Your task to perform on an android device: turn on translation in the chrome app Image 0: 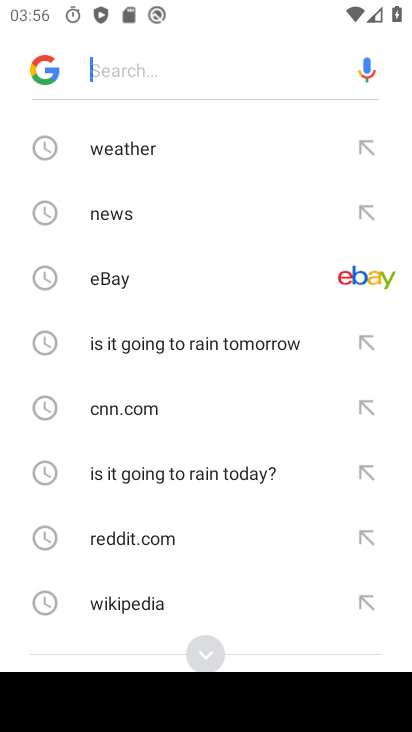
Step 0: press home button
Your task to perform on an android device: turn on translation in the chrome app Image 1: 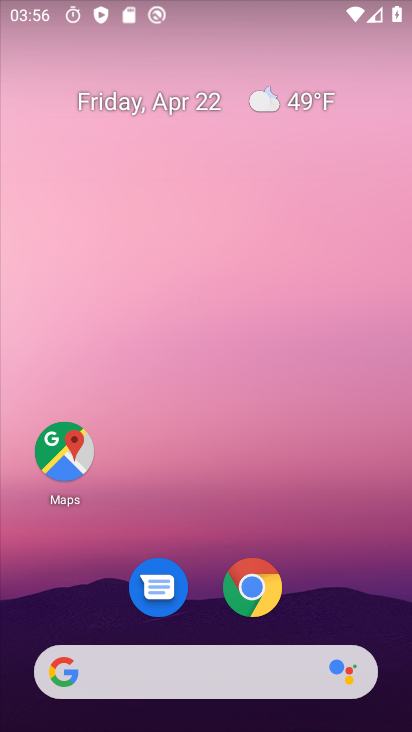
Step 1: click (246, 594)
Your task to perform on an android device: turn on translation in the chrome app Image 2: 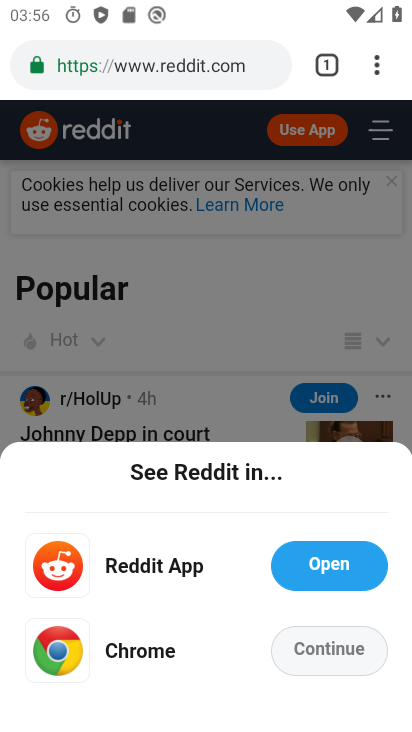
Step 2: drag from (376, 67) to (151, 634)
Your task to perform on an android device: turn on translation in the chrome app Image 3: 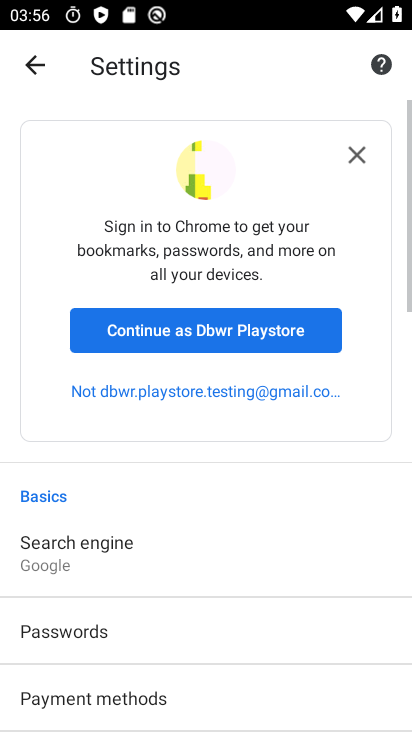
Step 3: drag from (160, 594) to (132, 136)
Your task to perform on an android device: turn on translation in the chrome app Image 4: 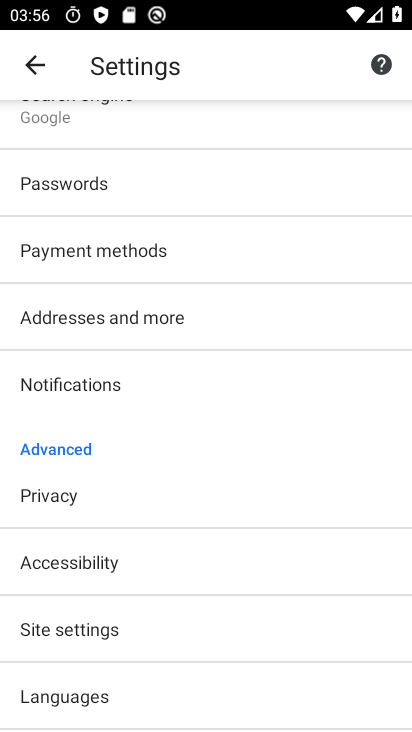
Step 4: drag from (192, 522) to (173, 229)
Your task to perform on an android device: turn on translation in the chrome app Image 5: 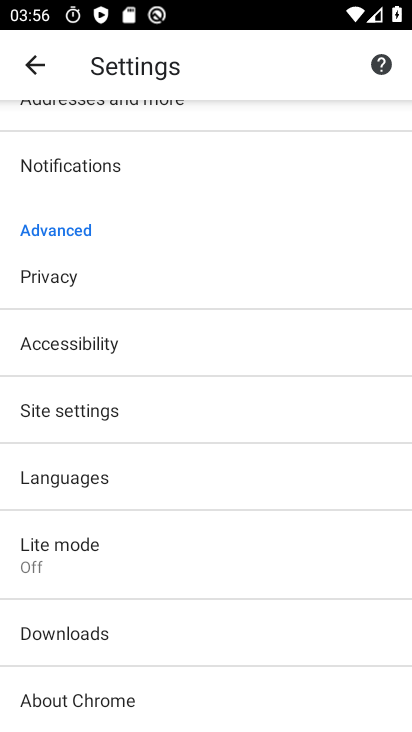
Step 5: click (53, 482)
Your task to perform on an android device: turn on translation in the chrome app Image 6: 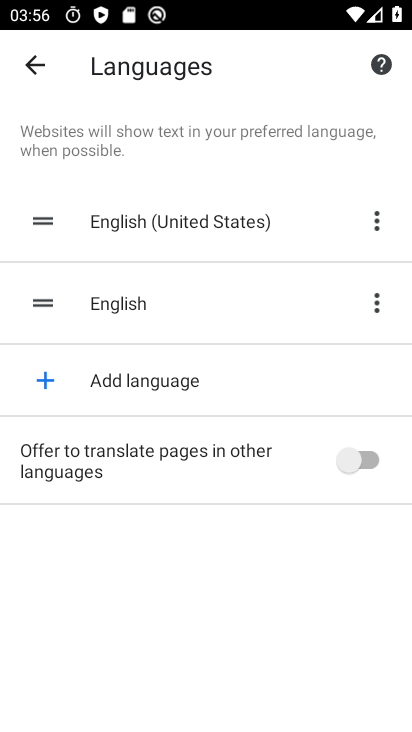
Step 6: click (344, 465)
Your task to perform on an android device: turn on translation in the chrome app Image 7: 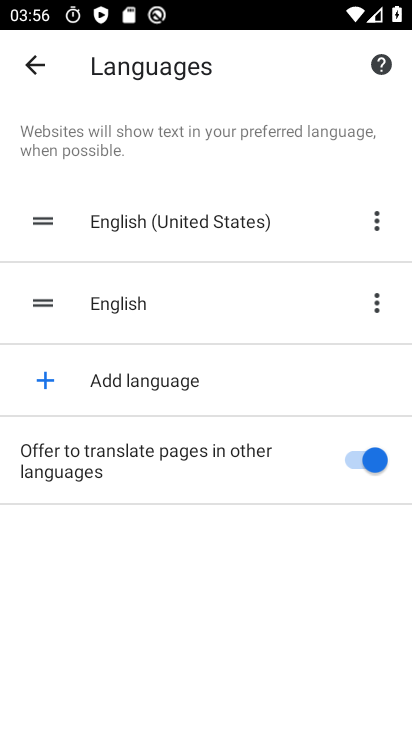
Step 7: task complete